Your task to perform on an android device: turn off location history Image 0: 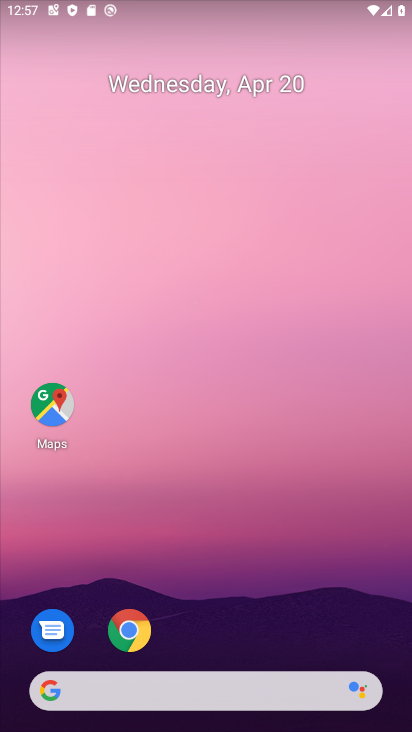
Step 0: drag from (347, 573) to (299, 144)
Your task to perform on an android device: turn off location history Image 1: 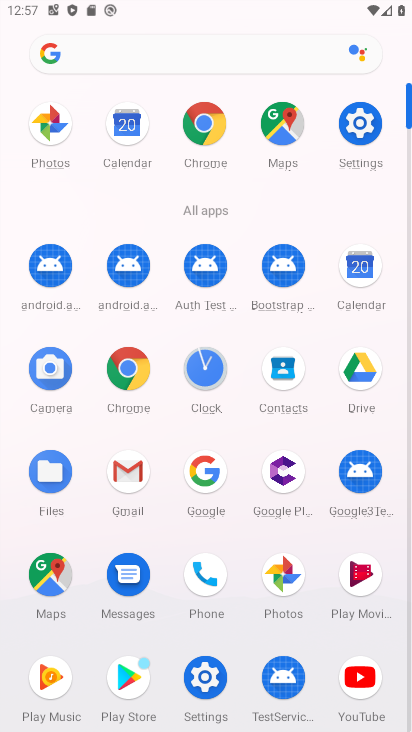
Step 1: click (360, 121)
Your task to perform on an android device: turn off location history Image 2: 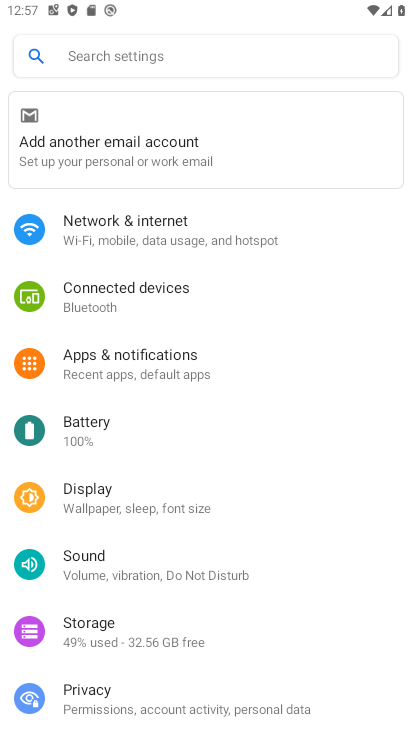
Step 2: drag from (326, 577) to (264, 297)
Your task to perform on an android device: turn off location history Image 3: 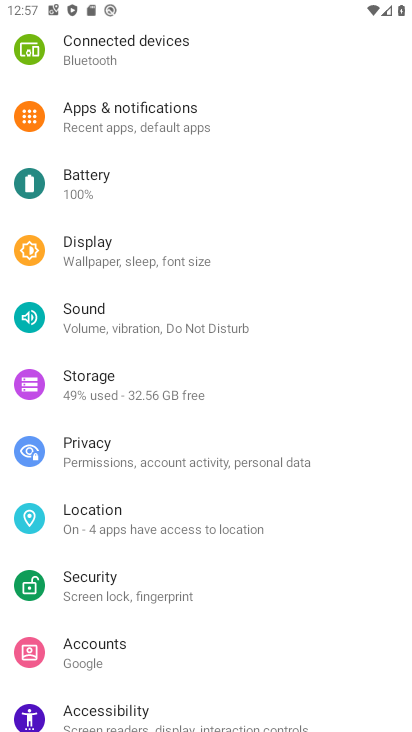
Step 3: click (231, 514)
Your task to perform on an android device: turn off location history Image 4: 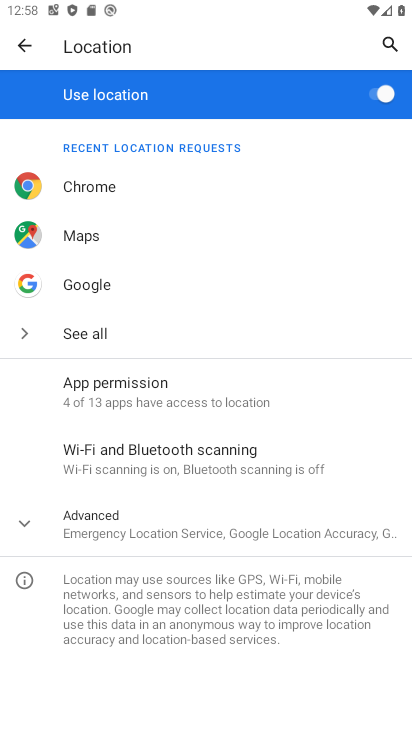
Step 4: click (182, 534)
Your task to perform on an android device: turn off location history Image 5: 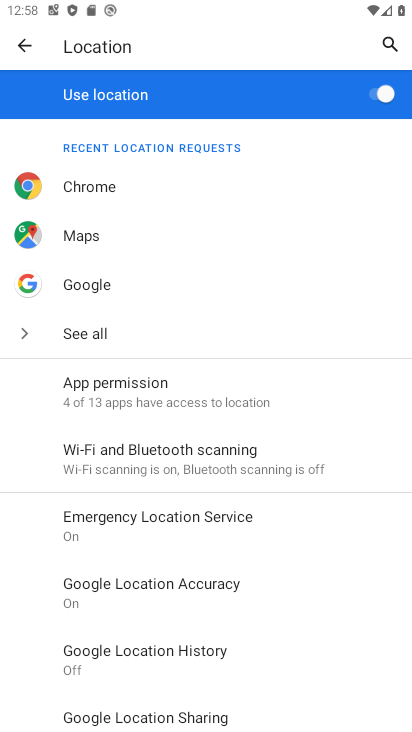
Step 5: drag from (282, 647) to (306, 411)
Your task to perform on an android device: turn off location history Image 6: 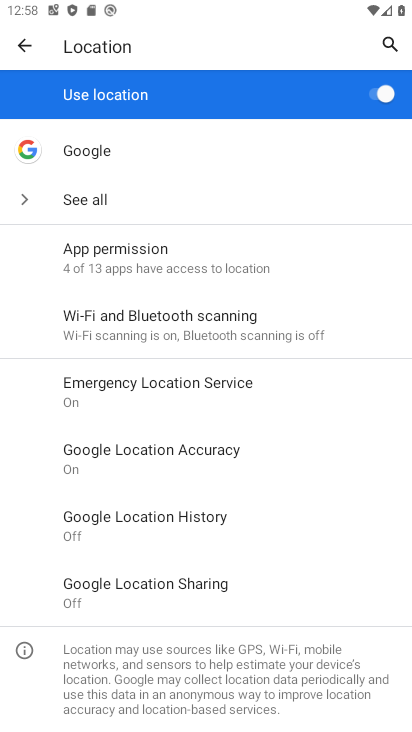
Step 6: click (201, 512)
Your task to perform on an android device: turn off location history Image 7: 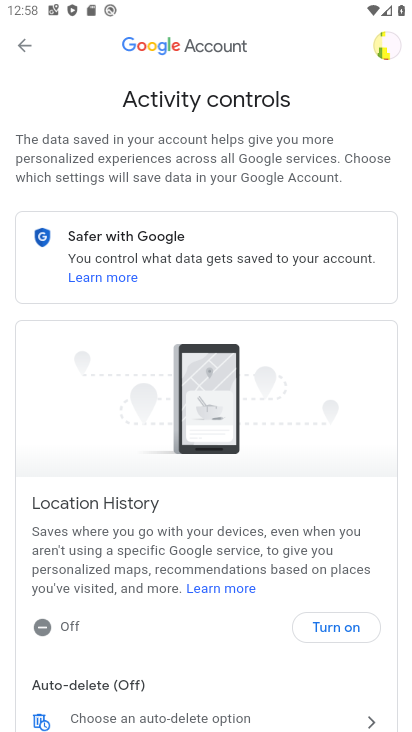
Step 7: task complete